Your task to perform on an android device: Turn off the flashlight Image 0: 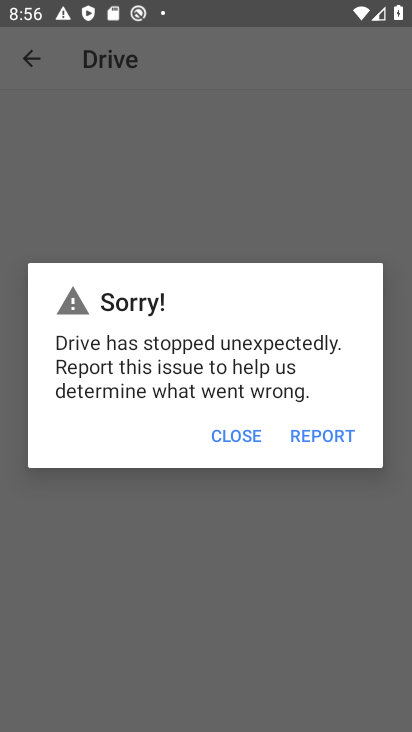
Step 0: press home button
Your task to perform on an android device: Turn off the flashlight Image 1: 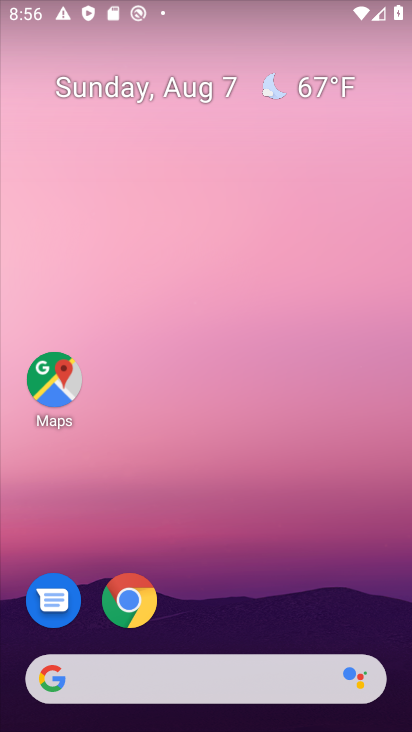
Step 1: task complete